Your task to perform on an android device: change keyboard looks Image 0: 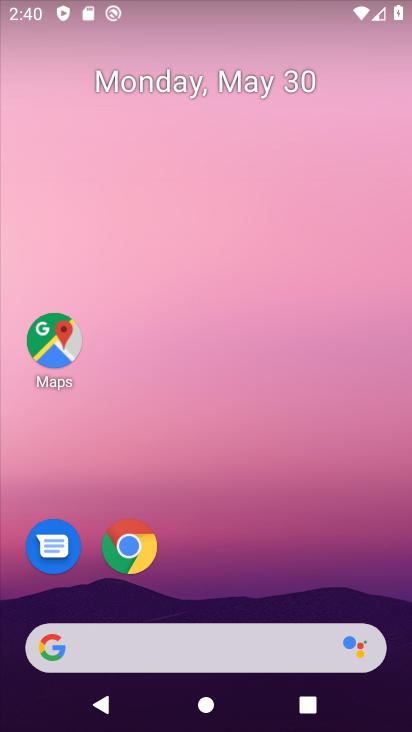
Step 0: drag from (305, 516) to (183, 0)
Your task to perform on an android device: change keyboard looks Image 1: 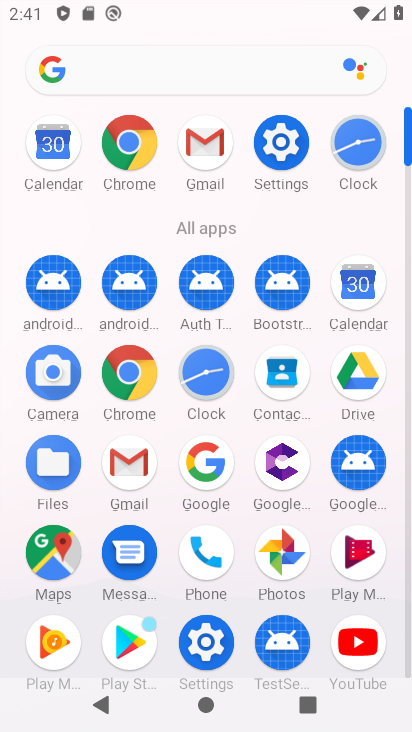
Step 1: click (282, 144)
Your task to perform on an android device: change keyboard looks Image 2: 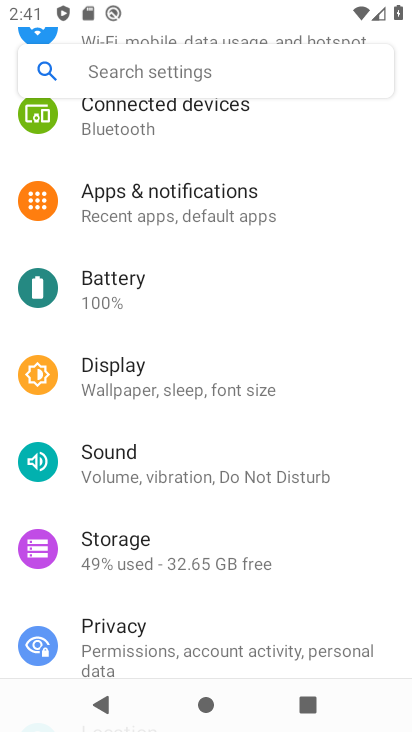
Step 2: drag from (317, 551) to (245, 1)
Your task to perform on an android device: change keyboard looks Image 3: 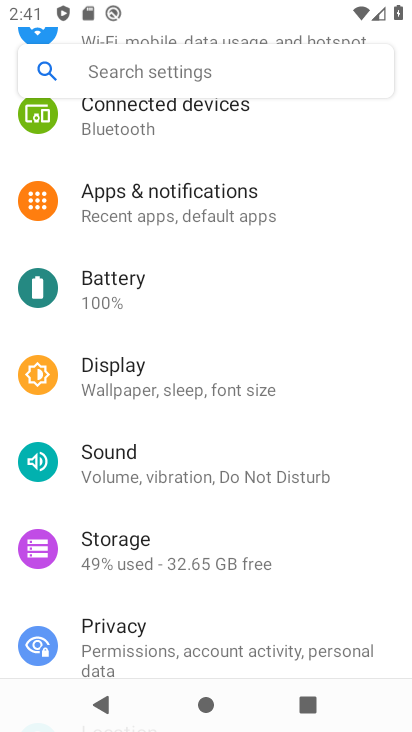
Step 3: drag from (226, 511) to (250, 67)
Your task to perform on an android device: change keyboard looks Image 4: 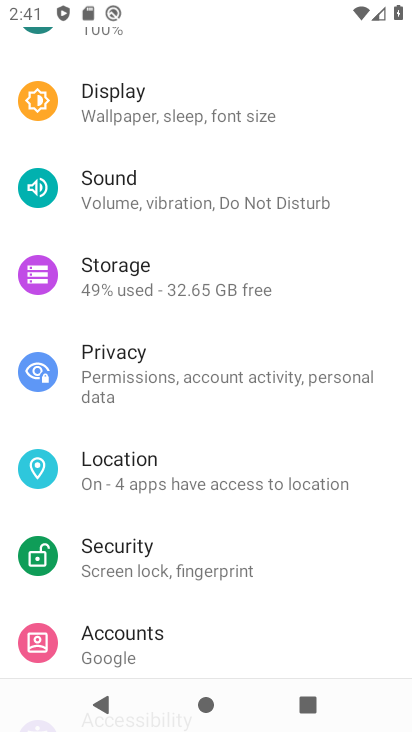
Step 4: drag from (108, 679) to (160, 139)
Your task to perform on an android device: change keyboard looks Image 5: 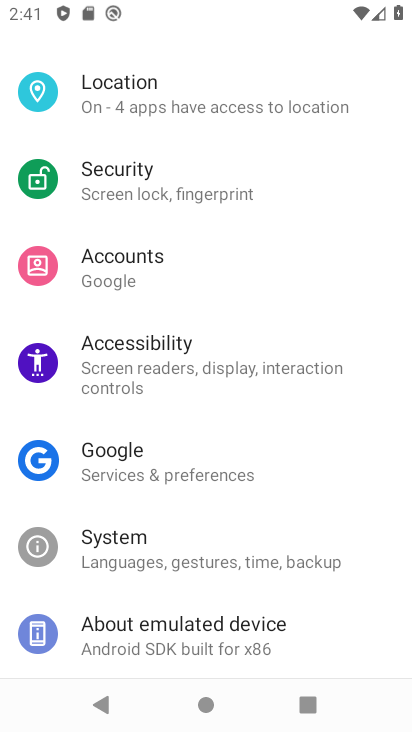
Step 5: click (178, 563)
Your task to perform on an android device: change keyboard looks Image 6: 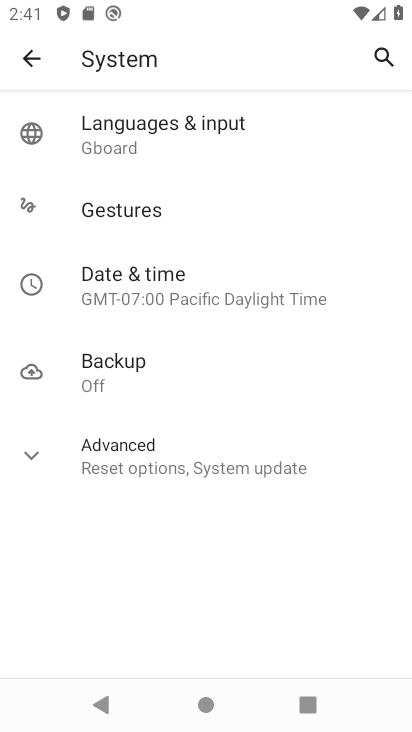
Step 6: click (152, 138)
Your task to perform on an android device: change keyboard looks Image 7: 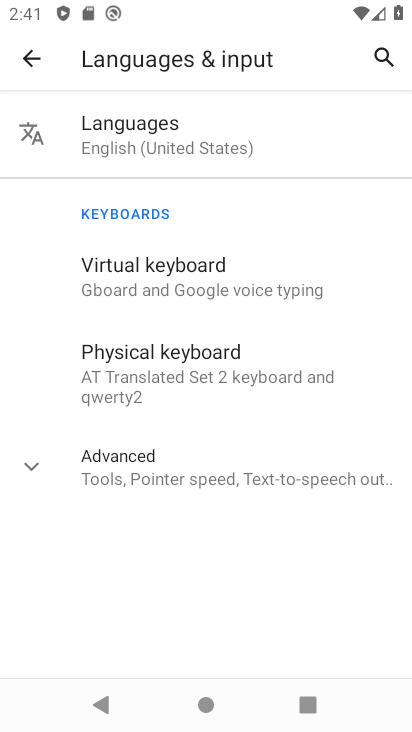
Step 7: click (158, 277)
Your task to perform on an android device: change keyboard looks Image 8: 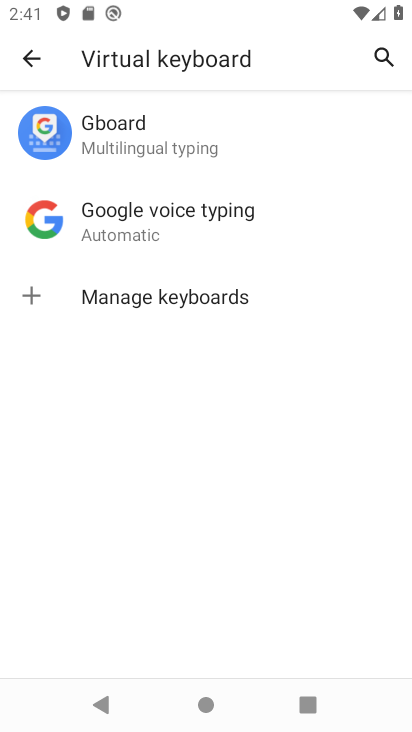
Step 8: click (111, 140)
Your task to perform on an android device: change keyboard looks Image 9: 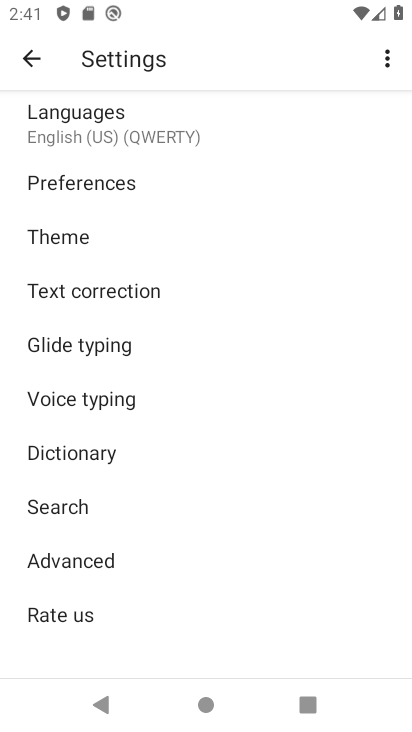
Step 9: click (83, 245)
Your task to perform on an android device: change keyboard looks Image 10: 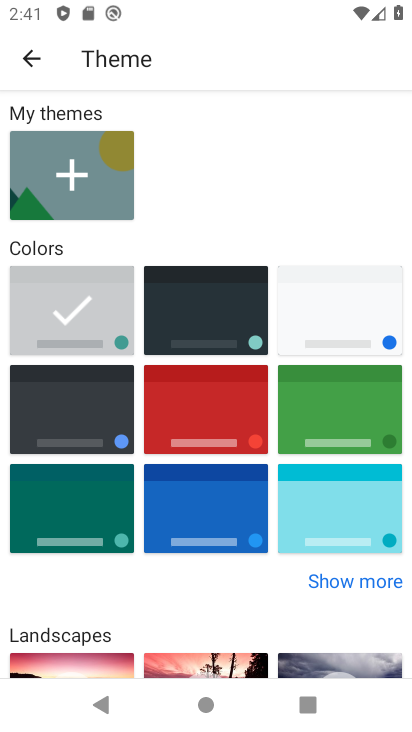
Step 10: click (350, 321)
Your task to perform on an android device: change keyboard looks Image 11: 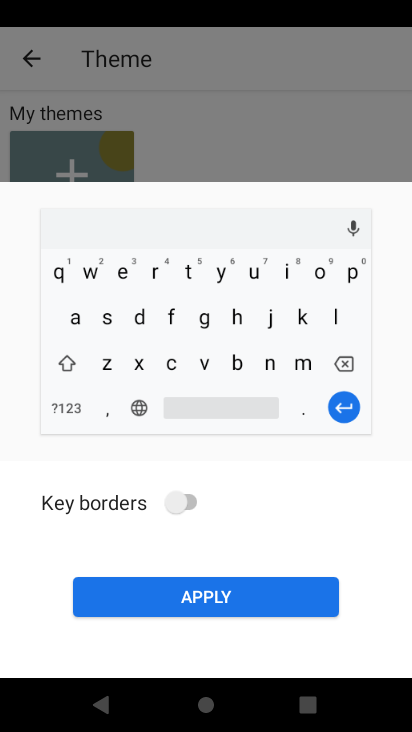
Step 11: click (312, 593)
Your task to perform on an android device: change keyboard looks Image 12: 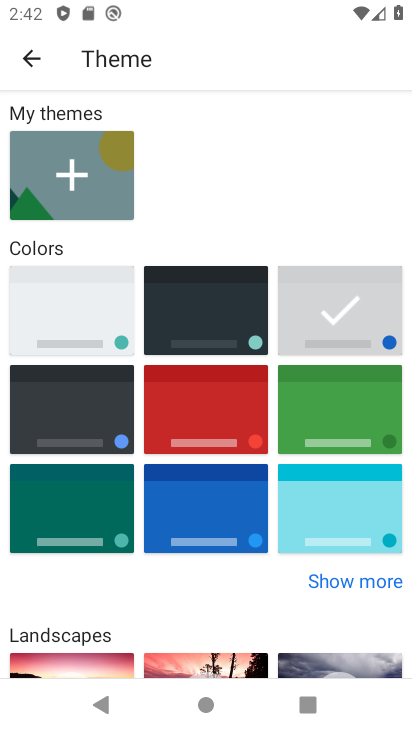
Step 12: task complete